Your task to perform on an android device: Go to notification settings Image 0: 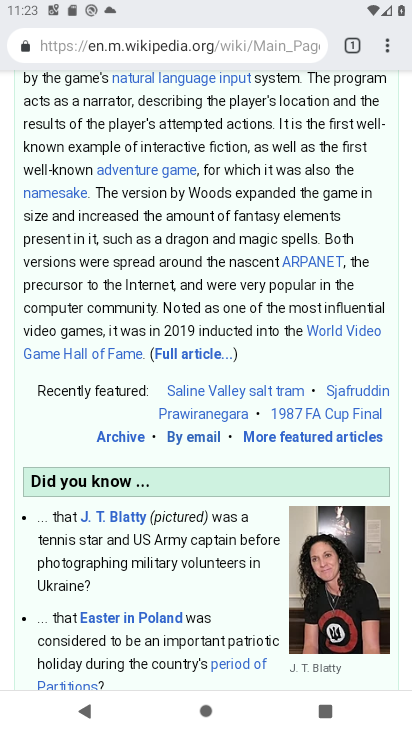
Step 0: press home button
Your task to perform on an android device: Go to notification settings Image 1: 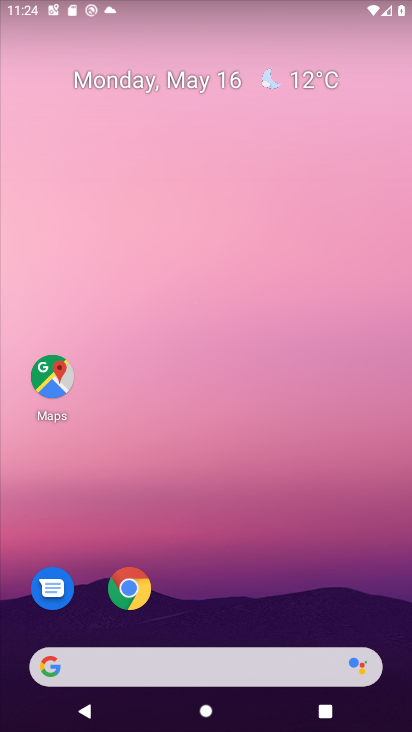
Step 1: drag from (221, 628) to (202, 124)
Your task to perform on an android device: Go to notification settings Image 2: 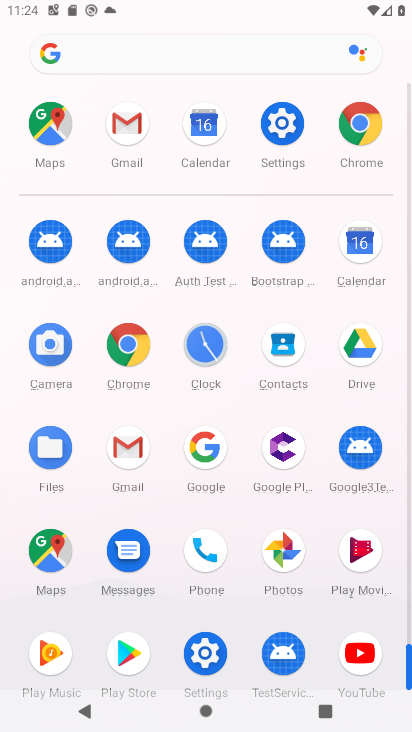
Step 2: click (277, 112)
Your task to perform on an android device: Go to notification settings Image 3: 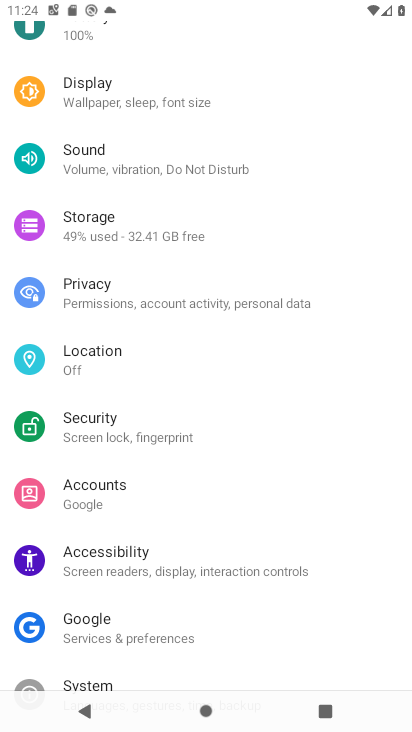
Step 3: drag from (135, 76) to (127, 691)
Your task to perform on an android device: Go to notification settings Image 4: 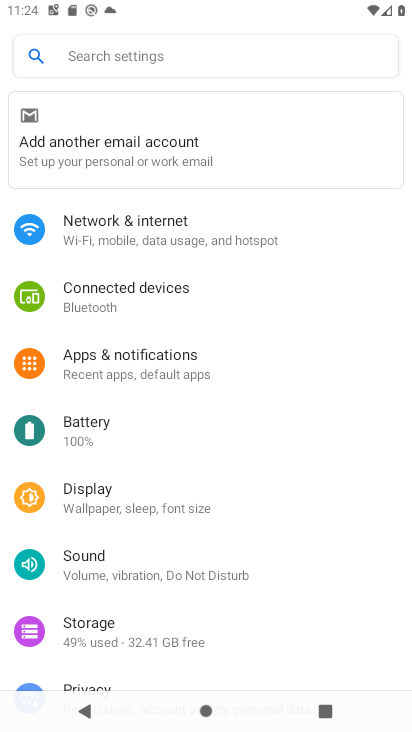
Step 4: click (217, 357)
Your task to perform on an android device: Go to notification settings Image 5: 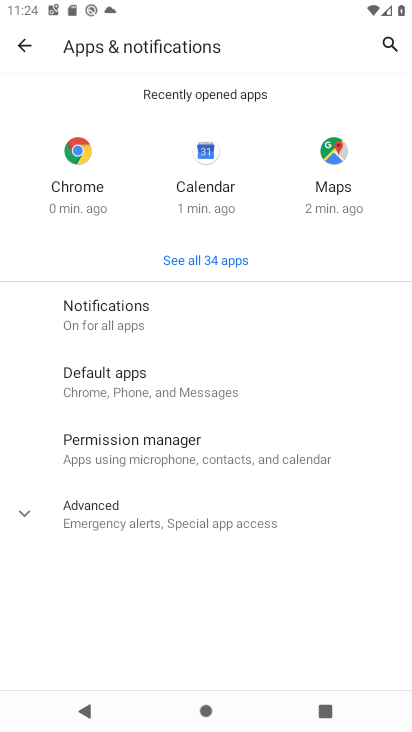
Step 5: click (169, 313)
Your task to perform on an android device: Go to notification settings Image 6: 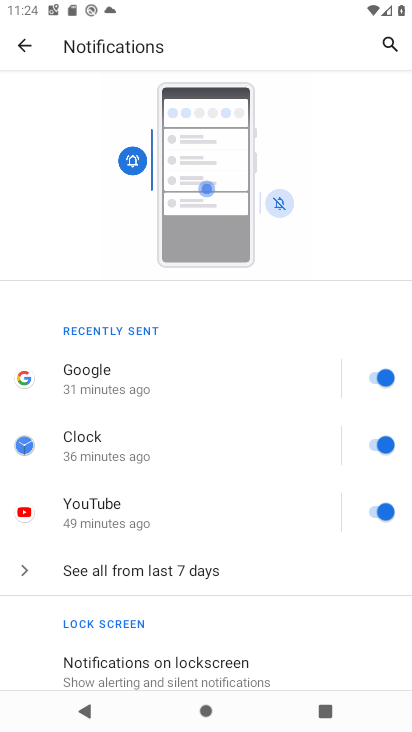
Step 6: drag from (239, 611) to (242, 160)
Your task to perform on an android device: Go to notification settings Image 7: 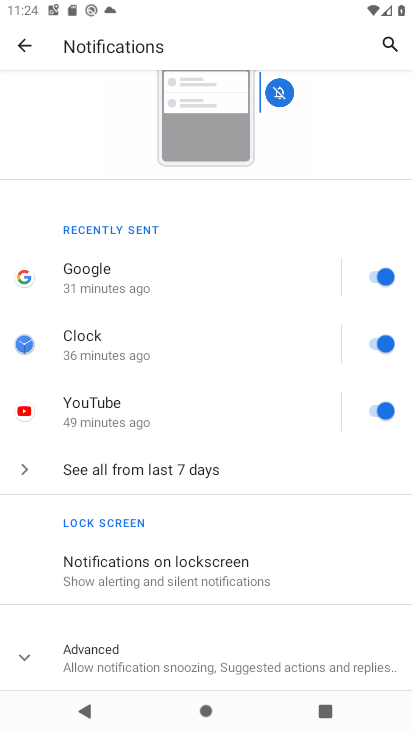
Step 7: click (16, 651)
Your task to perform on an android device: Go to notification settings Image 8: 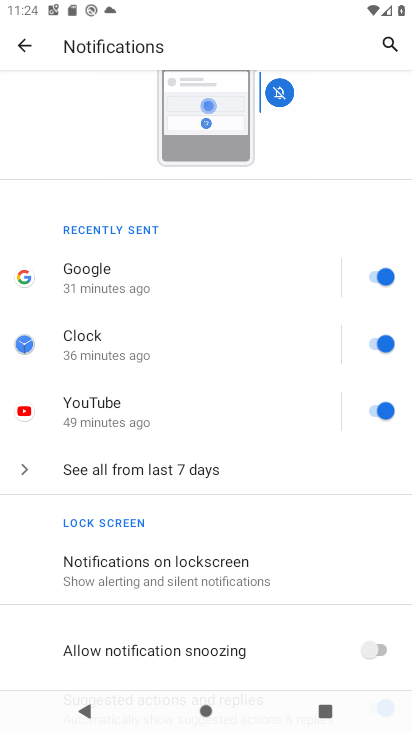
Step 8: click (192, 614)
Your task to perform on an android device: Go to notification settings Image 9: 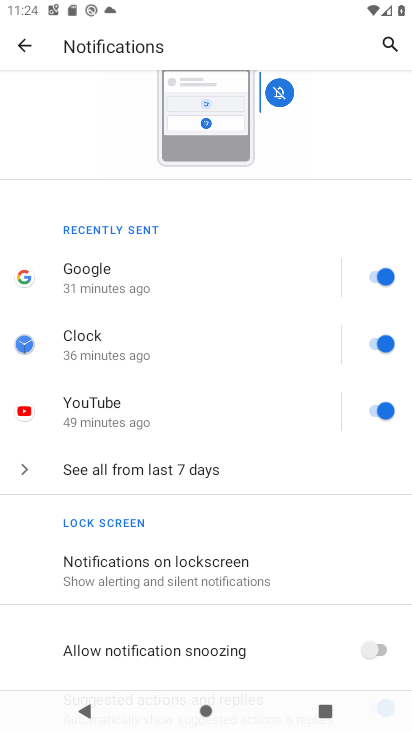
Step 9: task complete